Your task to perform on an android device: Open Android settings Image 0: 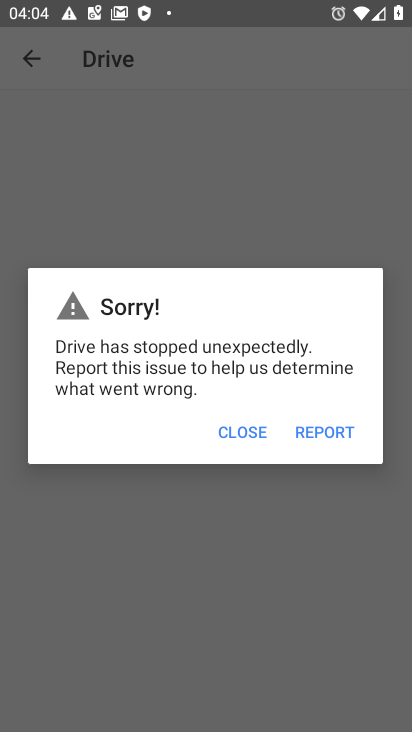
Step 0: press home button
Your task to perform on an android device: Open Android settings Image 1: 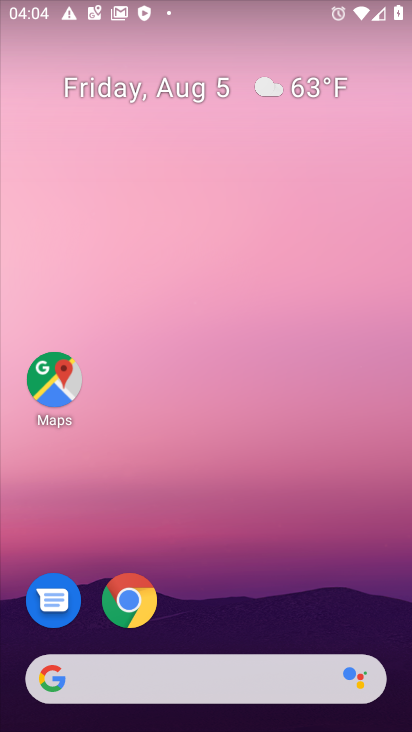
Step 1: drag from (198, 690) to (193, 195)
Your task to perform on an android device: Open Android settings Image 2: 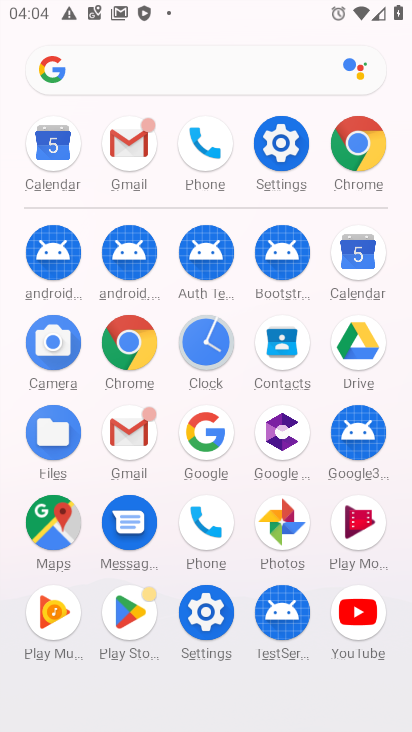
Step 2: click (280, 145)
Your task to perform on an android device: Open Android settings Image 3: 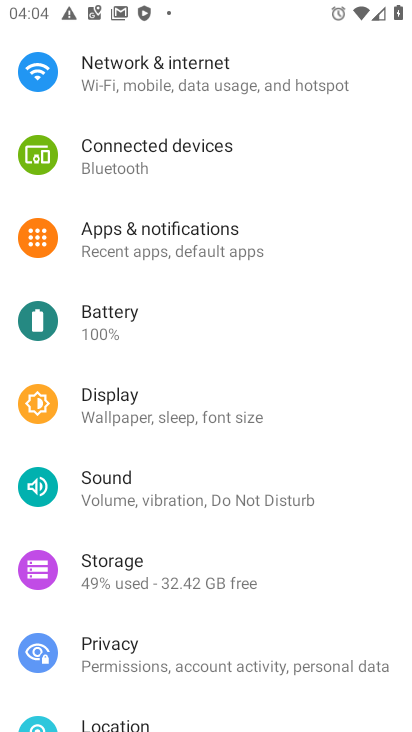
Step 3: task complete